Your task to perform on an android device: change the clock display to digital Image 0: 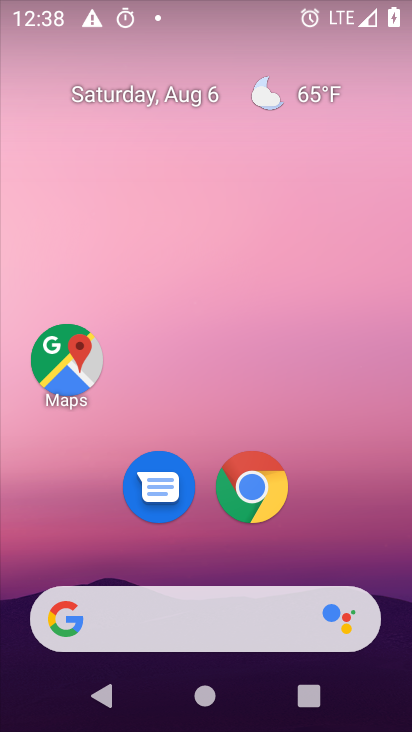
Step 0: drag from (211, 581) to (288, 83)
Your task to perform on an android device: change the clock display to digital Image 1: 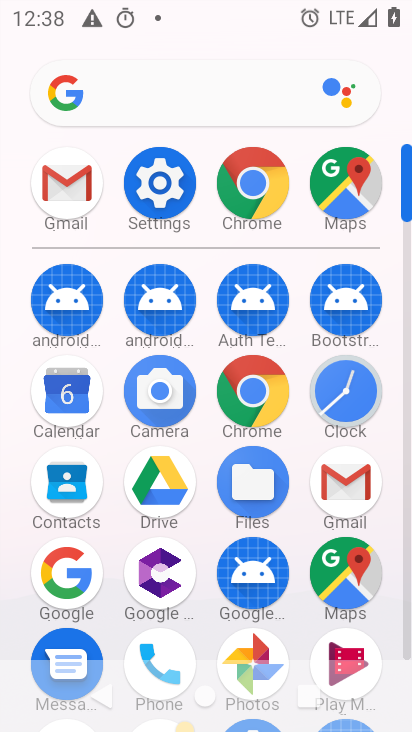
Step 1: click (365, 392)
Your task to perform on an android device: change the clock display to digital Image 2: 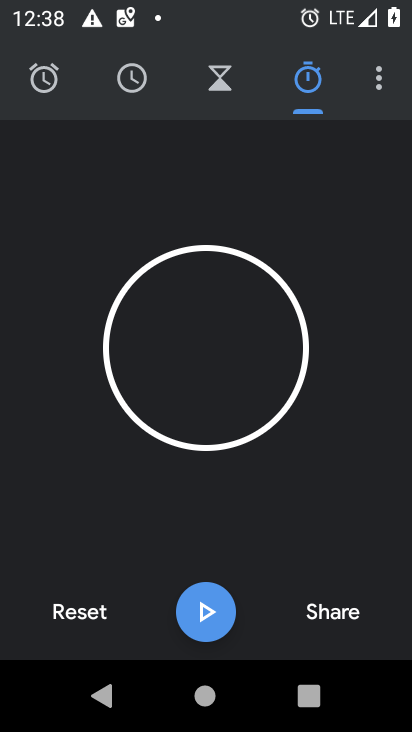
Step 2: click (379, 85)
Your task to perform on an android device: change the clock display to digital Image 3: 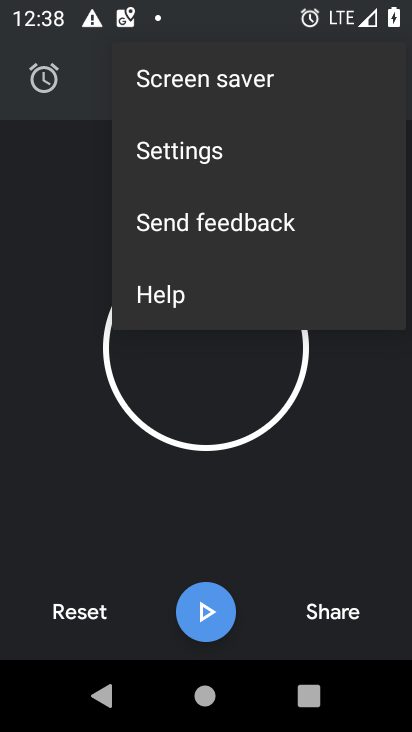
Step 3: click (193, 156)
Your task to perform on an android device: change the clock display to digital Image 4: 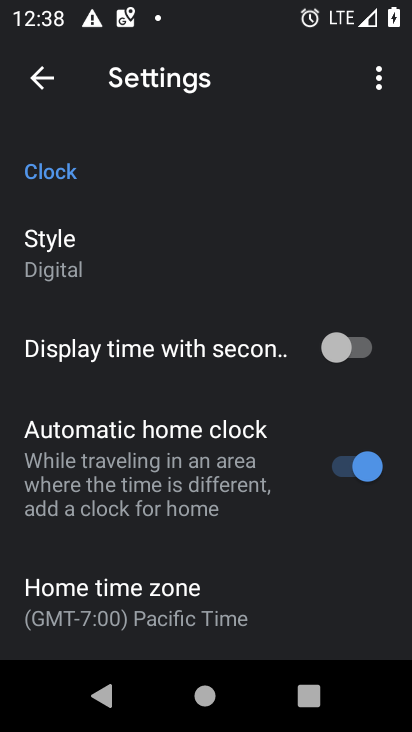
Step 4: task complete